Your task to perform on an android device: snooze an email in the gmail app Image 0: 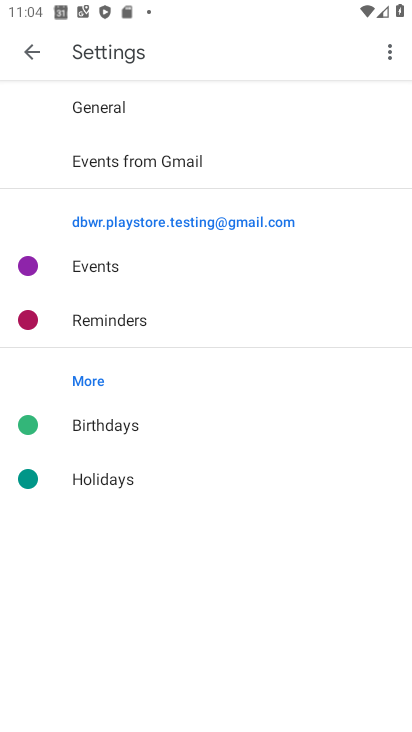
Step 0: press home button
Your task to perform on an android device: snooze an email in the gmail app Image 1: 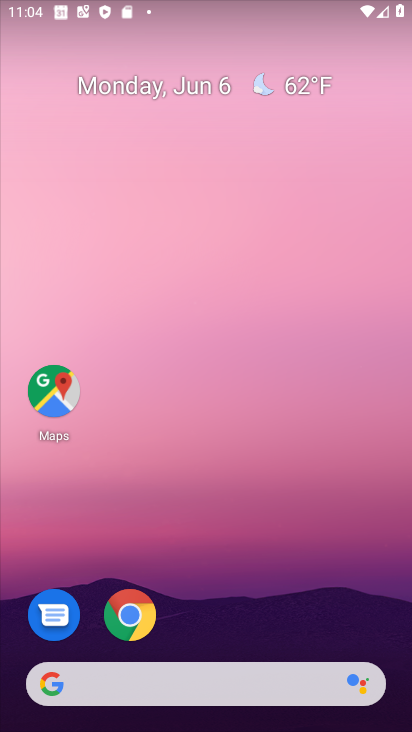
Step 1: drag from (187, 692) to (219, 239)
Your task to perform on an android device: snooze an email in the gmail app Image 2: 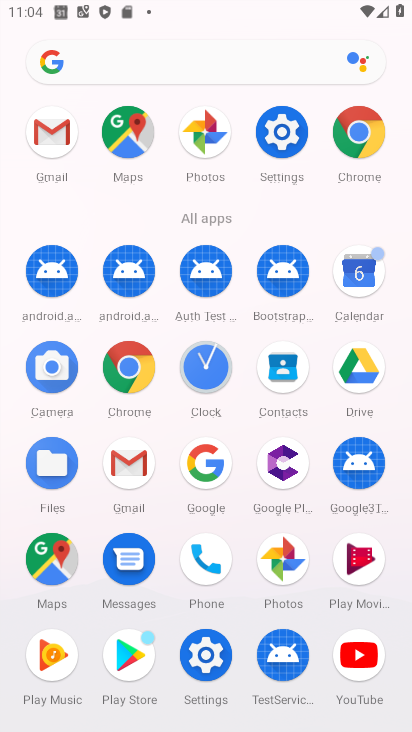
Step 2: click (55, 139)
Your task to perform on an android device: snooze an email in the gmail app Image 3: 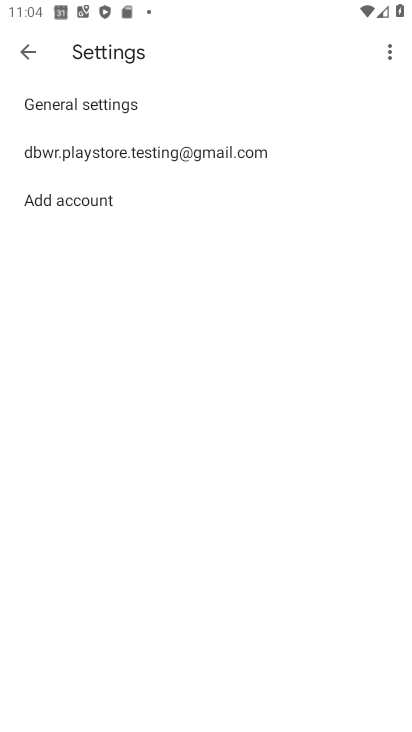
Step 3: click (26, 51)
Your task to perform on an android device: snooze an email in the gmail app Image 4: 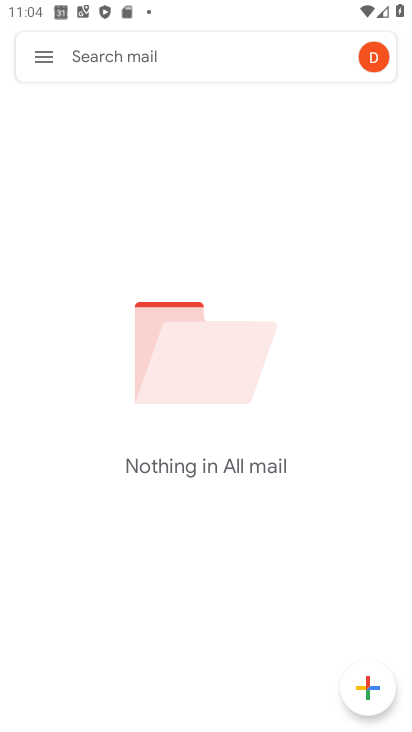
Step 4: click (42, 55)
Your task to perform on an android device: snooze an email in the gmail app Image 5: 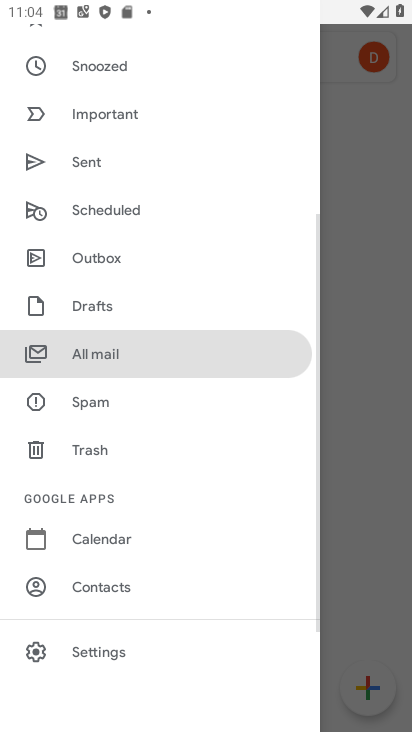
Step 5: click (137, 360)
Your task to perform on an android device: snooze an email in the gmail app Image 6: 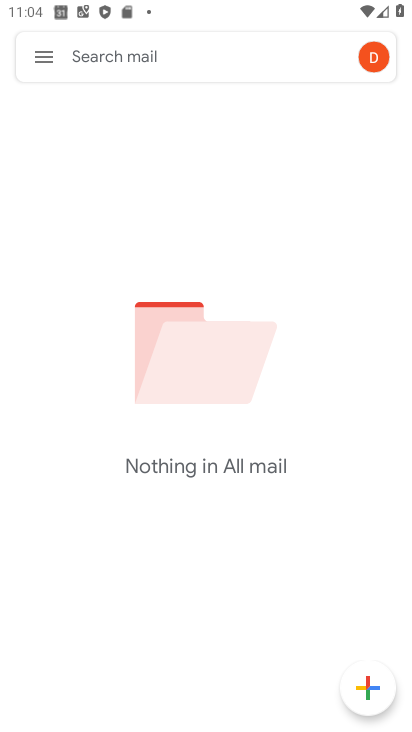
Step 6: task complete